Your task to perform on an android device: open app "Upside-Cash back on gas & food" Image 0: 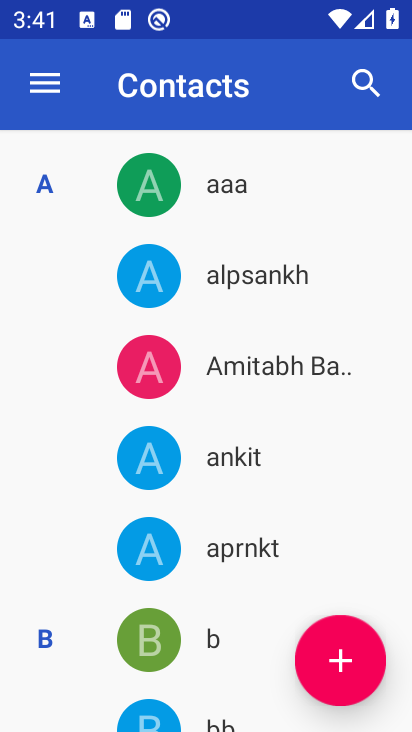
Step 0: press home button
Your task to perform on an android device: open app "Upside-Cash back on gas & food" Image 1: 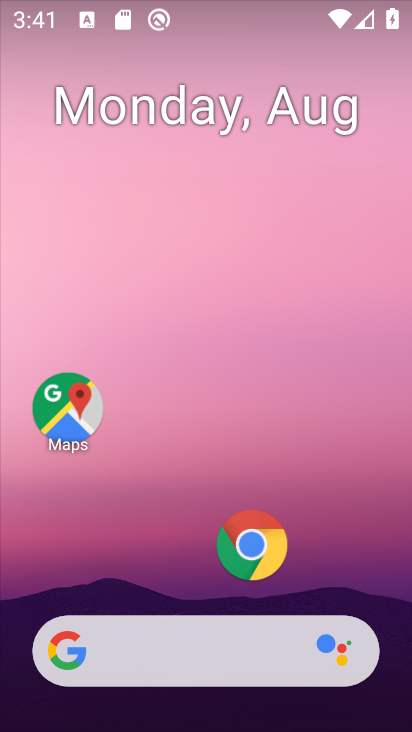
Step 1: drag from (105, 536) to (174, 57)
Your task to perform on an android device: open app "Upside-Cash back on gas & food" Image 2: 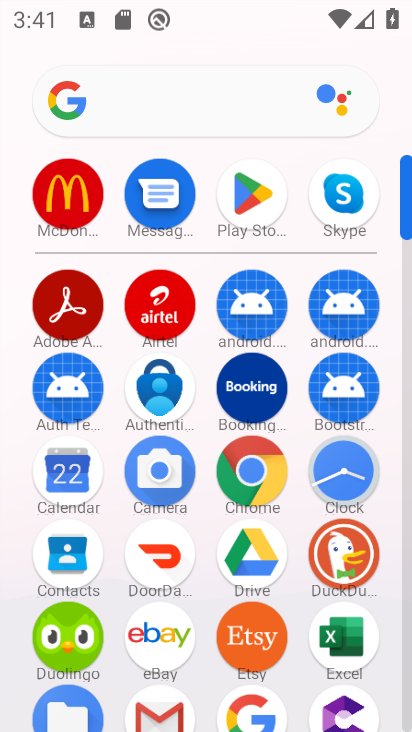
Step 2: click (249, 193)
Your task to perform on an android device: open app "Upside-Cash back on gas & food" Image 3: 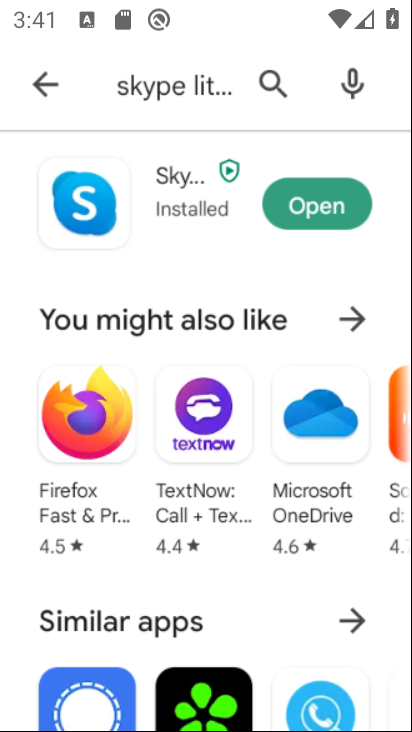
Step 3: click (281, 96)
Your task to perform on an android device: open app "Upside-Cash back on gas & food" Image 4: 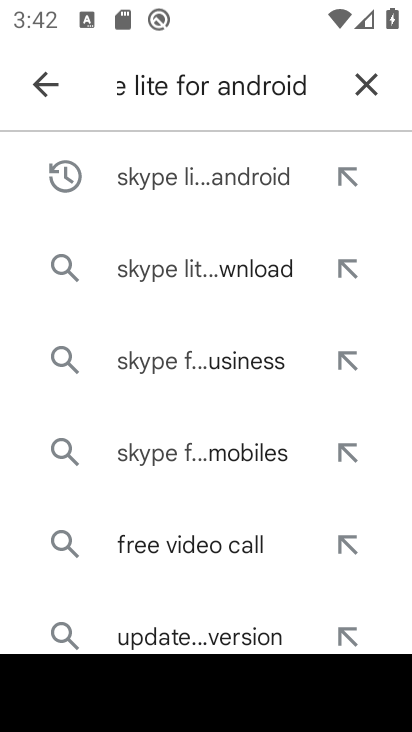
Step 4: click (355, 74)
Your task to perform on an android device: open app "Upside-Cash back on gas & food" Image 5: 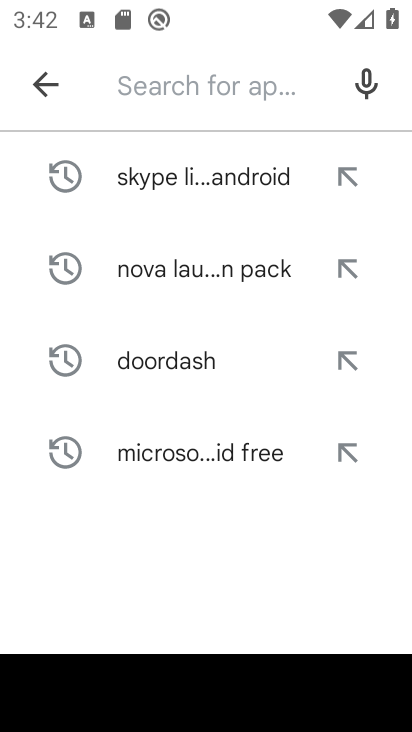
Step 5: click (162, 96)
Your task to perform on an android device: open app "Upside-Cash back on gas & food" Image 6: 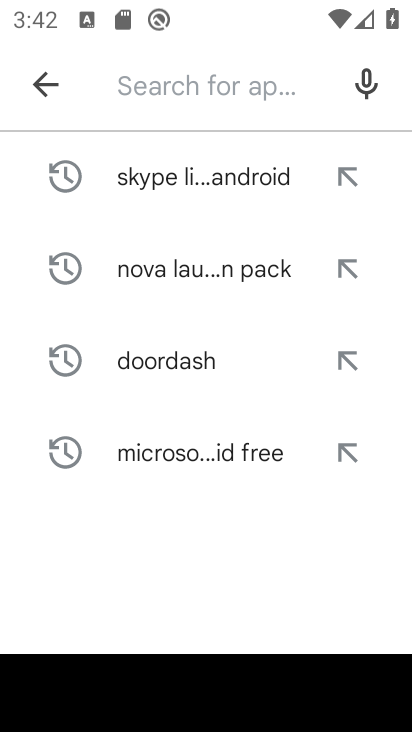
Step 6: type "Upside-Cash back on gas & food"
Your task to perform on an android device: open app "Upside-Cash back on gas & food" Image 7: 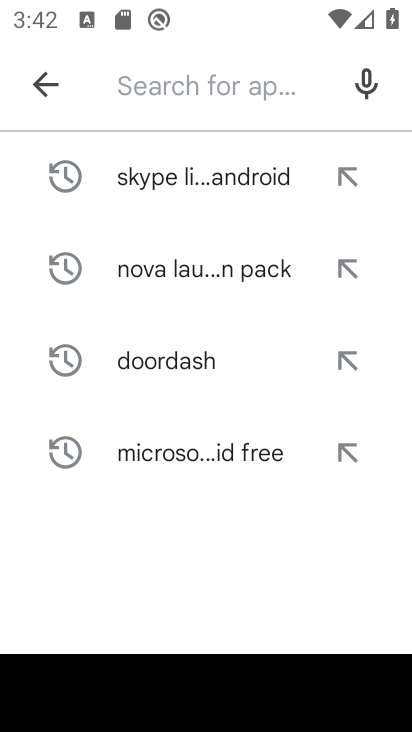
Step 7: click (256, 552)
Your task to perform on an android device: open app "Upside-Cash back on gas & food" Image 8: 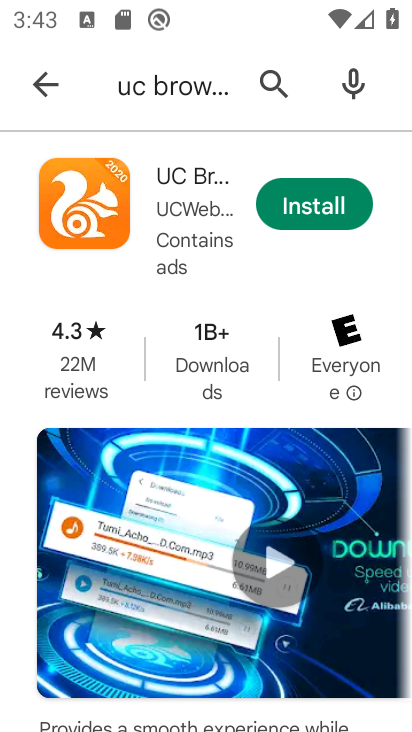
Step 8: click (270, 76)
Your task to perform on an android device: open app "Upside-Cash back on gas & food" Image 9: 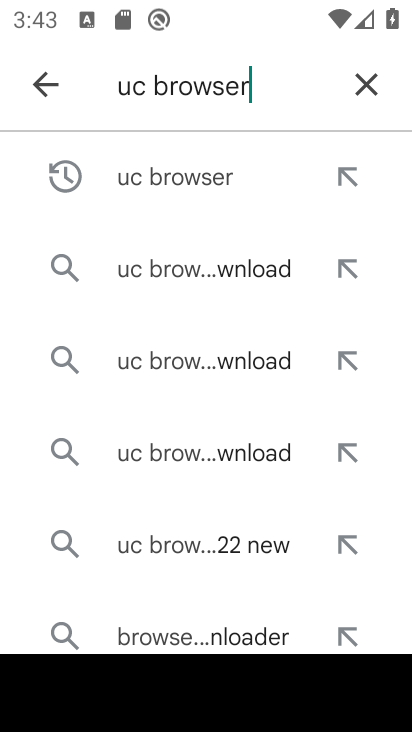
Step 9: click (369, 71)
Your task to perform on an android device: open app "Upside-Cash back on gas & food" Image 10: 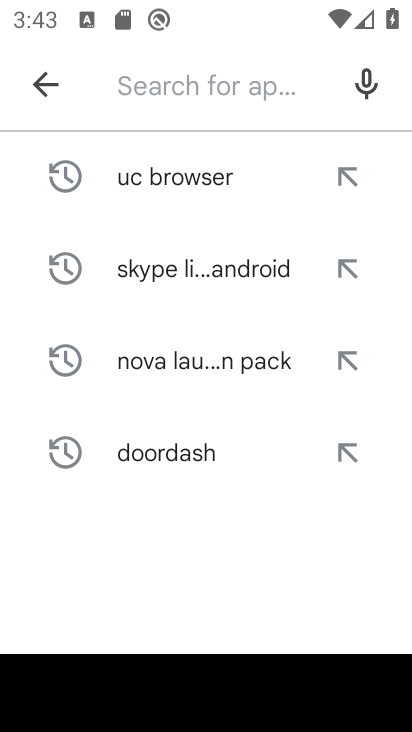
Step 10: click (176, 84)
Your task to perform on an android device: open app "Upside-Cash back on gas & food" Image 11: 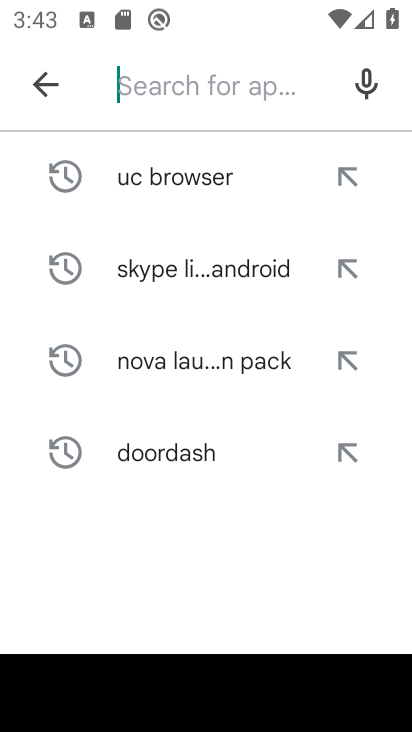
Step 11: type "upside cash"
Your task to perform on an android device: open app "Upside-Cash back on gas & food" Image 12: 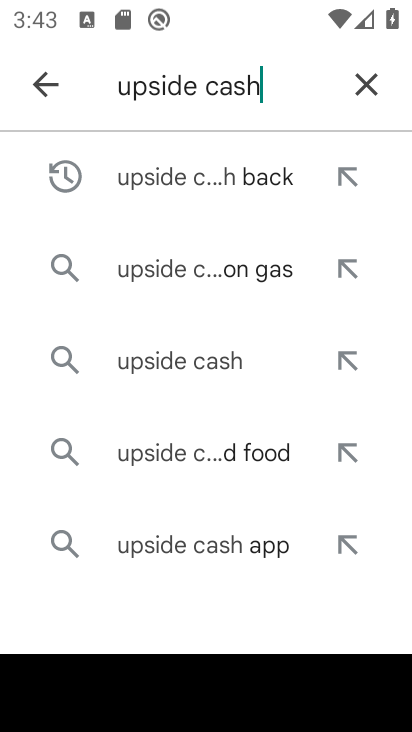
Step 12: click (183, 163)
Your task to perform on an android device: open app "Upside-Cash back on gas & food" Image 13: 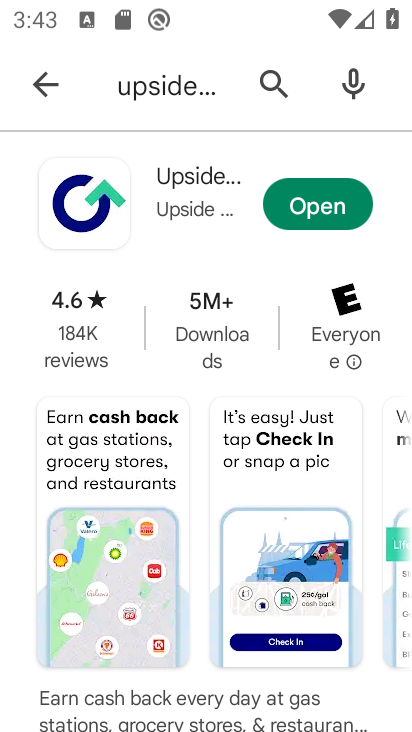
Step 13: click (289, 202)
Your task to perform on an android device: open app "Upside-Cash back on gas & food" Image 14: 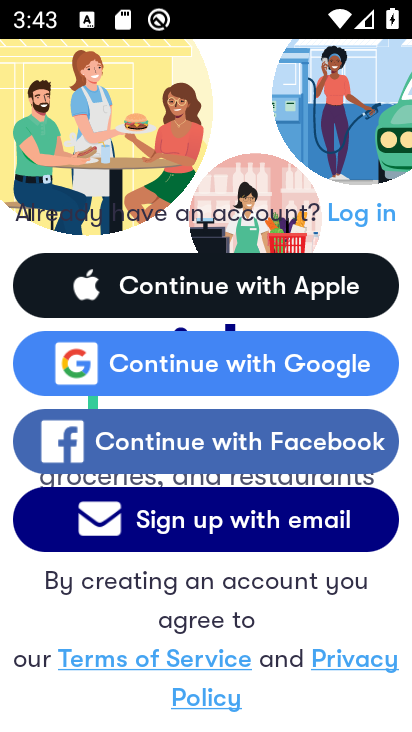
Step 14: task complete